Your task to perform on an android device: Go to calendar. Show me events next week Image 0: 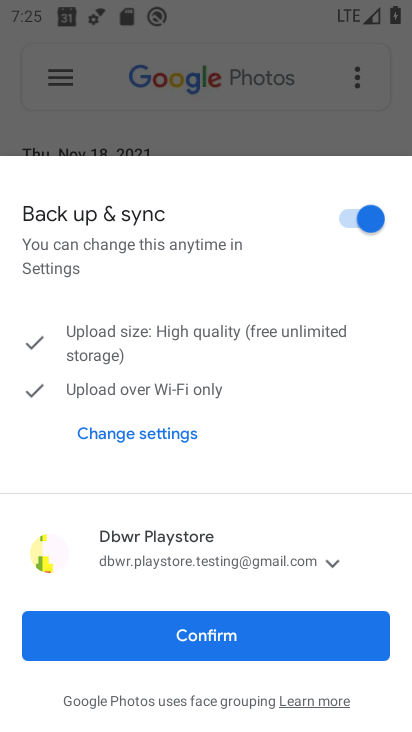
Step 0: press home button
Your task to perform on an android device: Go to calendar. Show me events next week Image 1: 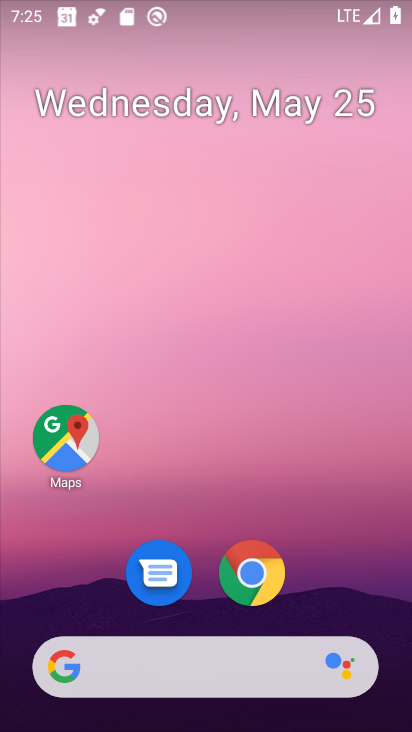
Step 1: drag from (392, 694) to (370, 255)
Your task to perform on an android device: Go to calendar. Show me events next week Image 2: 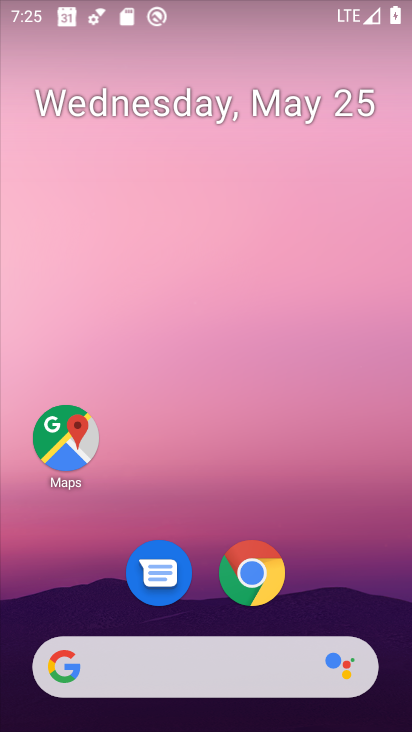
Step 2: drag from (388, 608) to (366, 172)
Your task to perform on an android device: Go to calendar. Show me events next week Image 3: 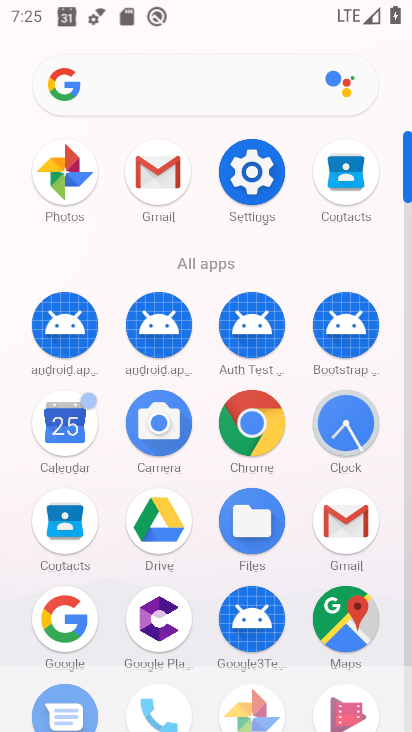
Step 3: click (61, 431)
Your task to perform on an android device: Go to calendar. Show me events next week Image 4: 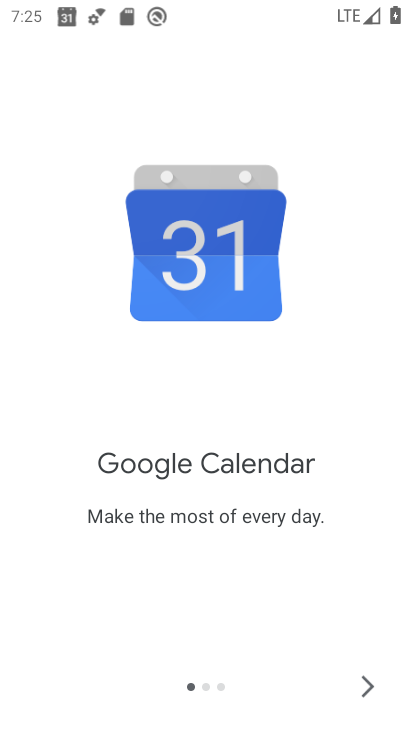
Step 4: click (375, 691)
Your task to perform on an android device: Go to calendar. Show me events next week Image 5: 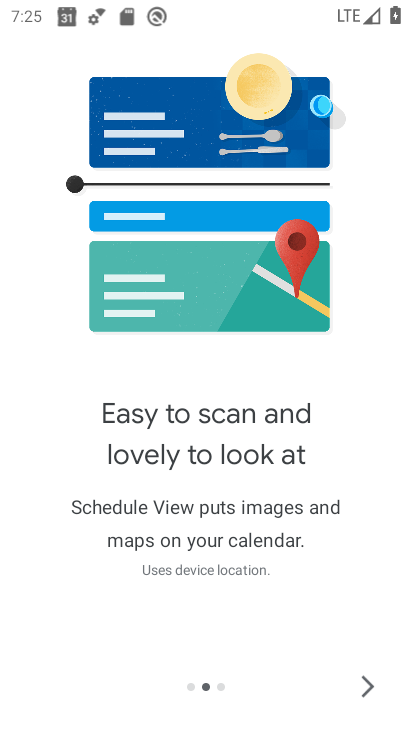
Step 5: click (373, 686)
Your task to perform on an android device: Go to calendar. Show me events next week Image 6: 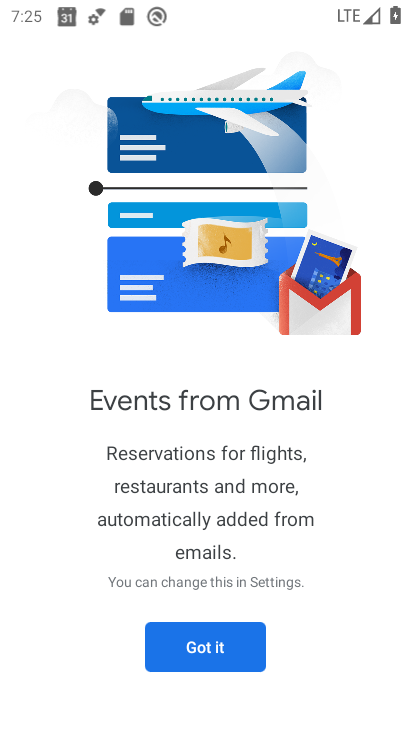
Step 6: click (237, 639)
Your task to perform on an android device: Go to calendar. Show me events next week Image 7: 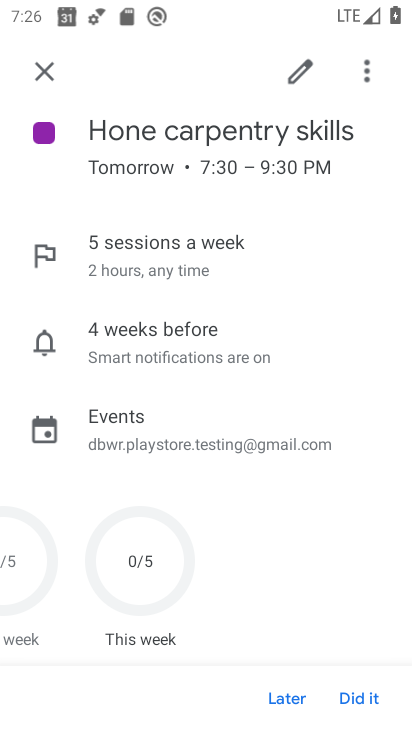
Step 7: press home button
Your task to perform on an android device: Go to calendar. Show me events next week Image 8: 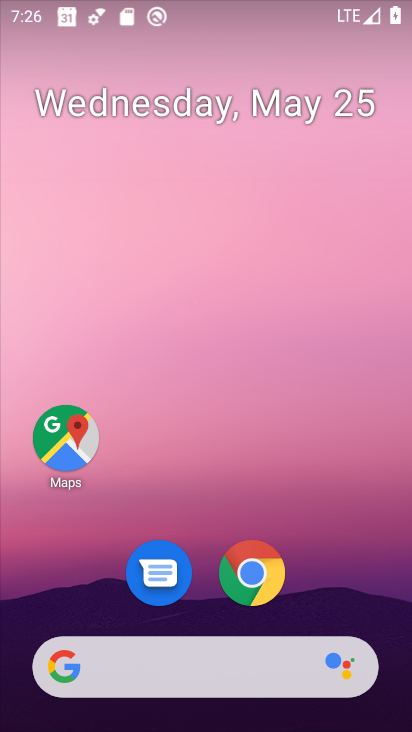
Step 8: drag from (391, 710) to (385, 246)
Your task to perform on an android device: Go to calendar. Show me events next week Image 9: 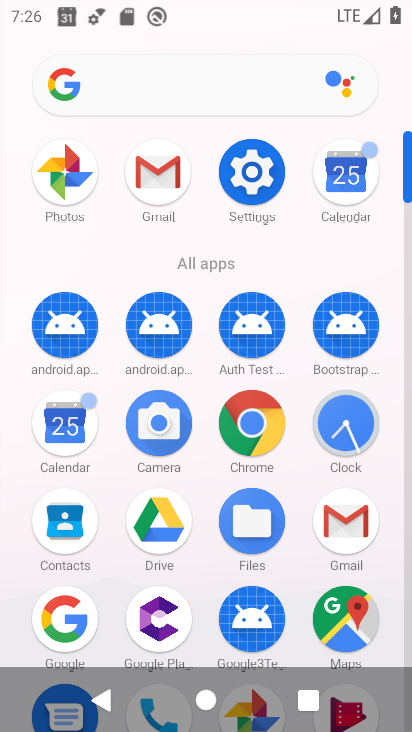
Step 9: click (336, 188)
Your task to perform on an android device: Go to calendar. Show me events next week Image 10: 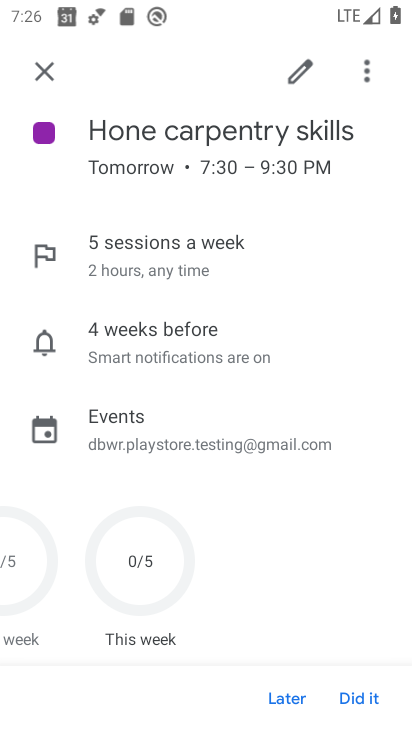
Step 10: press back button
Your task to perform on an android device: Go to calendar. Show me events next week Image 11: 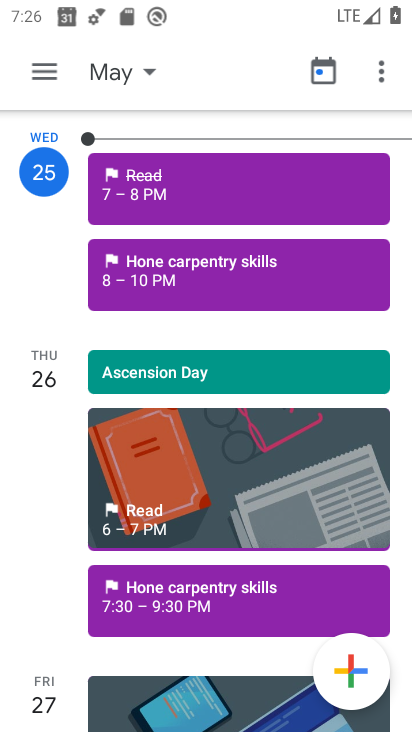
Step 11: press back button
Your task to perform on an android device: Go to calendar. Show me events next week Image 12: 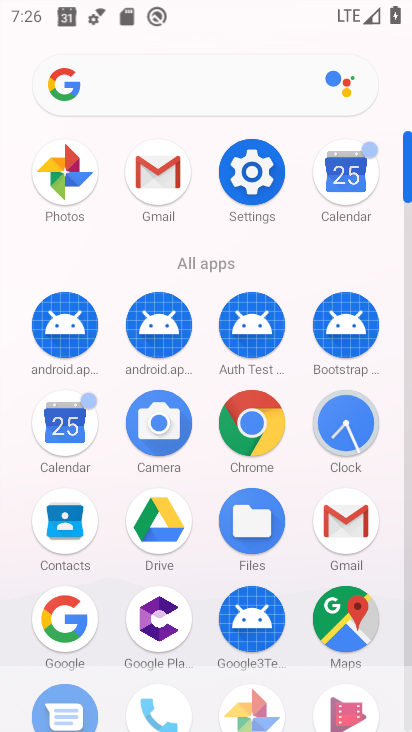
Step 12: click (355, 183)
Your task to perform on an android device: Go to calendar. Show me events next week Image 13: 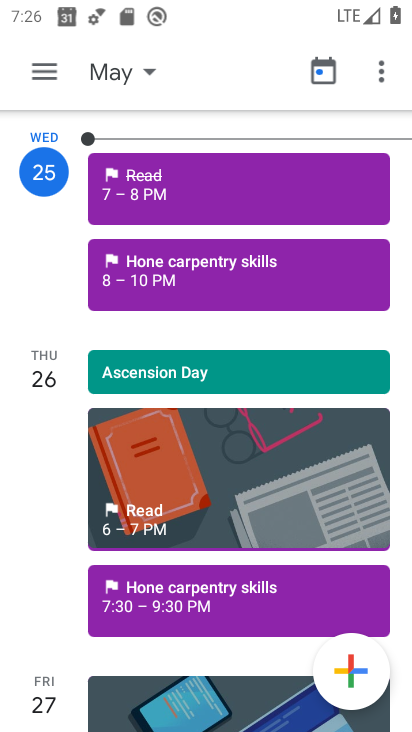
Step 13: click (146, 67)
Your task to perform on an android device: Go to calendar. Show me events next week Image 14: 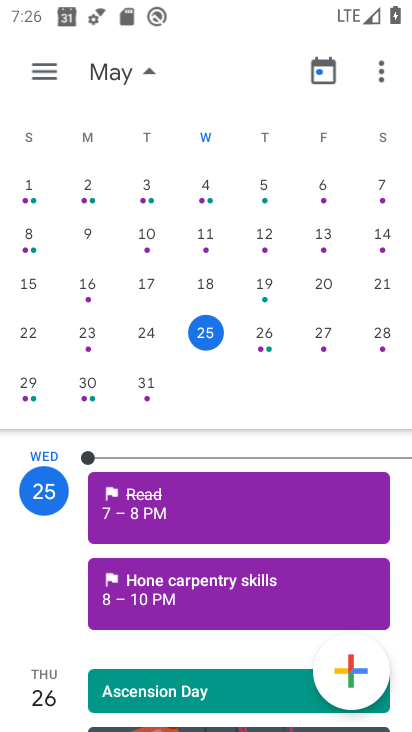
Step 14: click (83, 382)
Your task to perform on an android device: Go to calendar. Show me events next week Image 15: 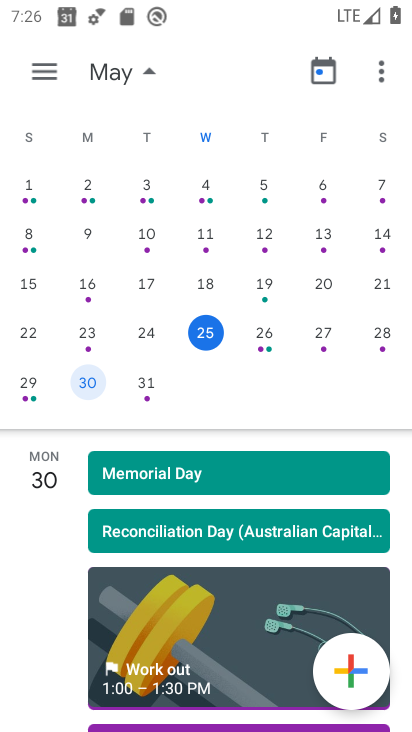
Step 15: click (36, 65)
Your task to perform on an android device: Go to calendar. Show me events next week Image 16: 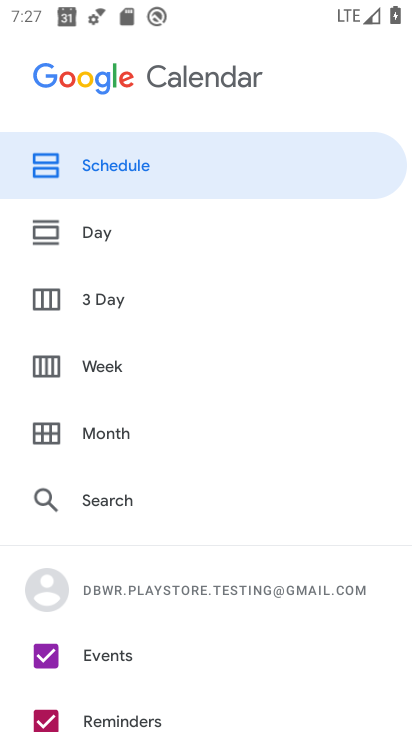
Step 16: click (87, 363)
Your task to perform on an android device: Go to calendar. Show me events next week Image 17: 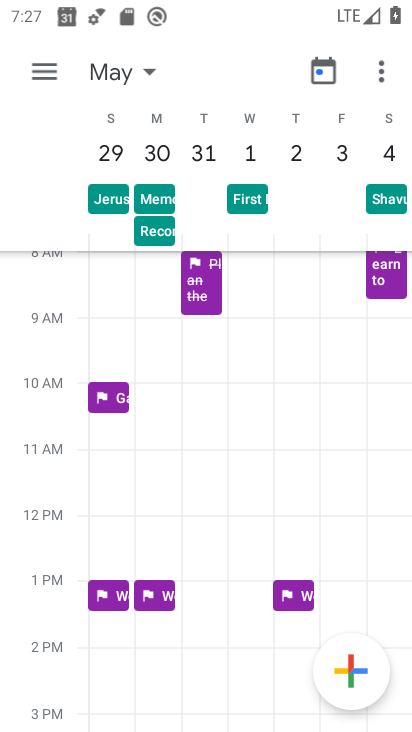
Step 17: task complete